Your task to perform on an android device: Search for "dell xps" on newegg, select the first entry, and add it to the cart. Image 0: 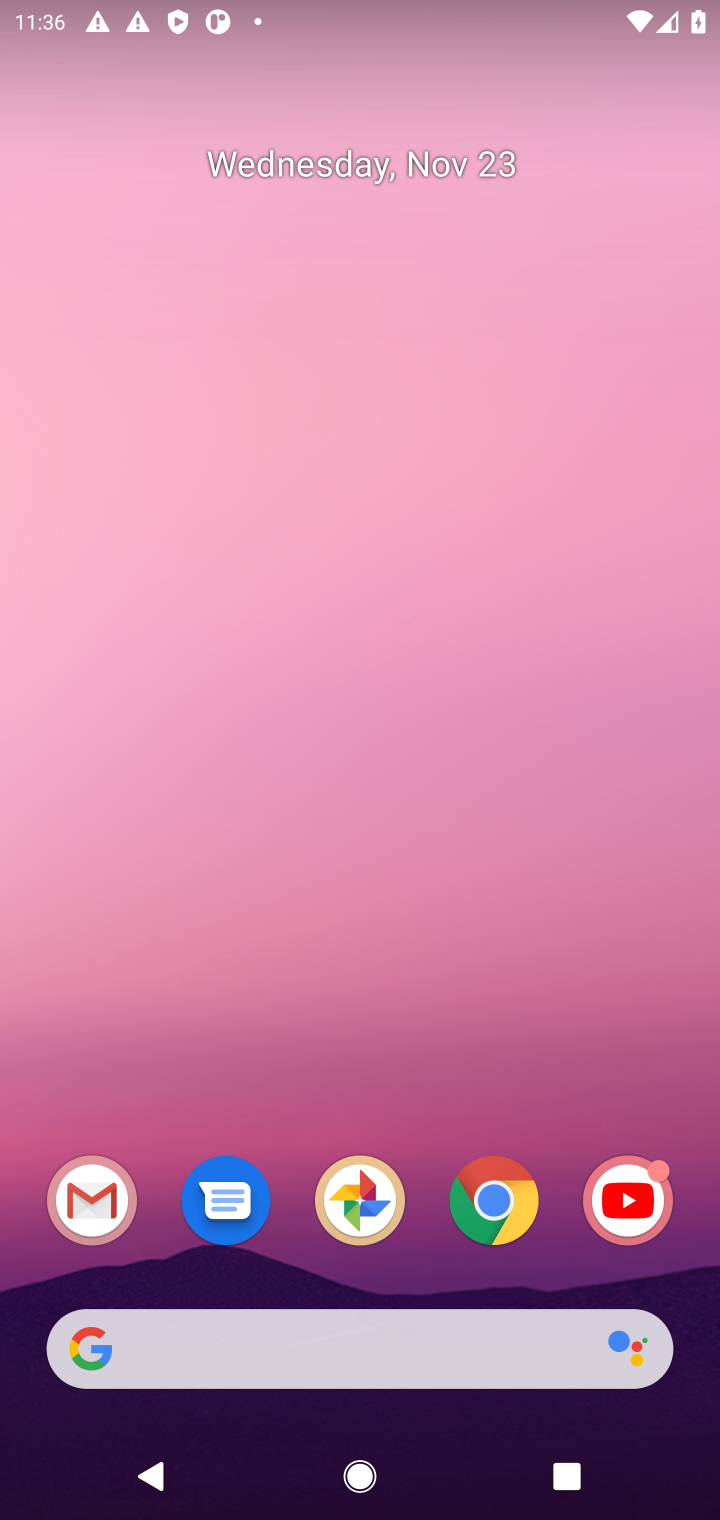
Step 0: click (555, 1335)
Your task to perform on an android device: Search for "dell xps" on newegg, select the first entry, and add it to the cart. Image 1: 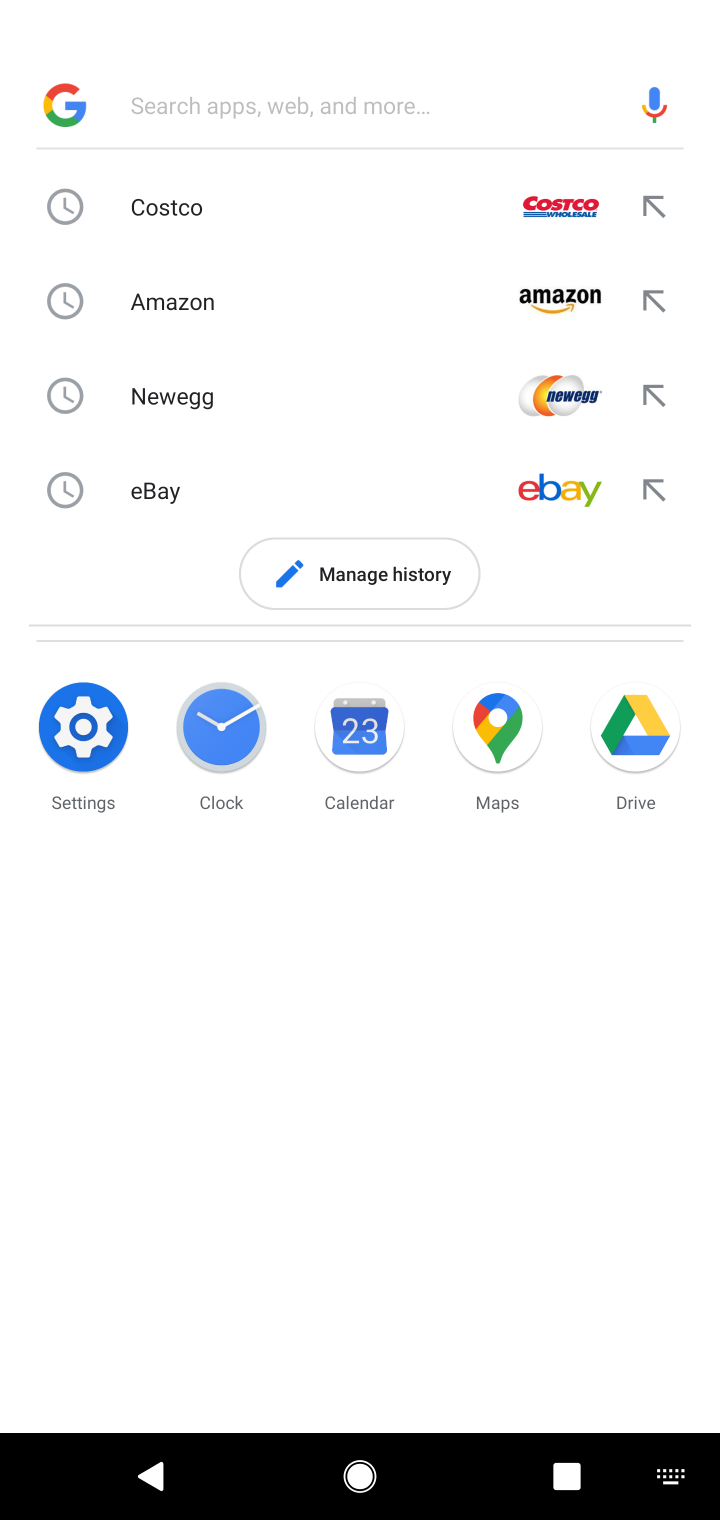
Step 1: click (504, 397)
Your task to perform on an android device: Search for "dell xps" on newegg, select the first entry, and add it to the cart. Image 2: 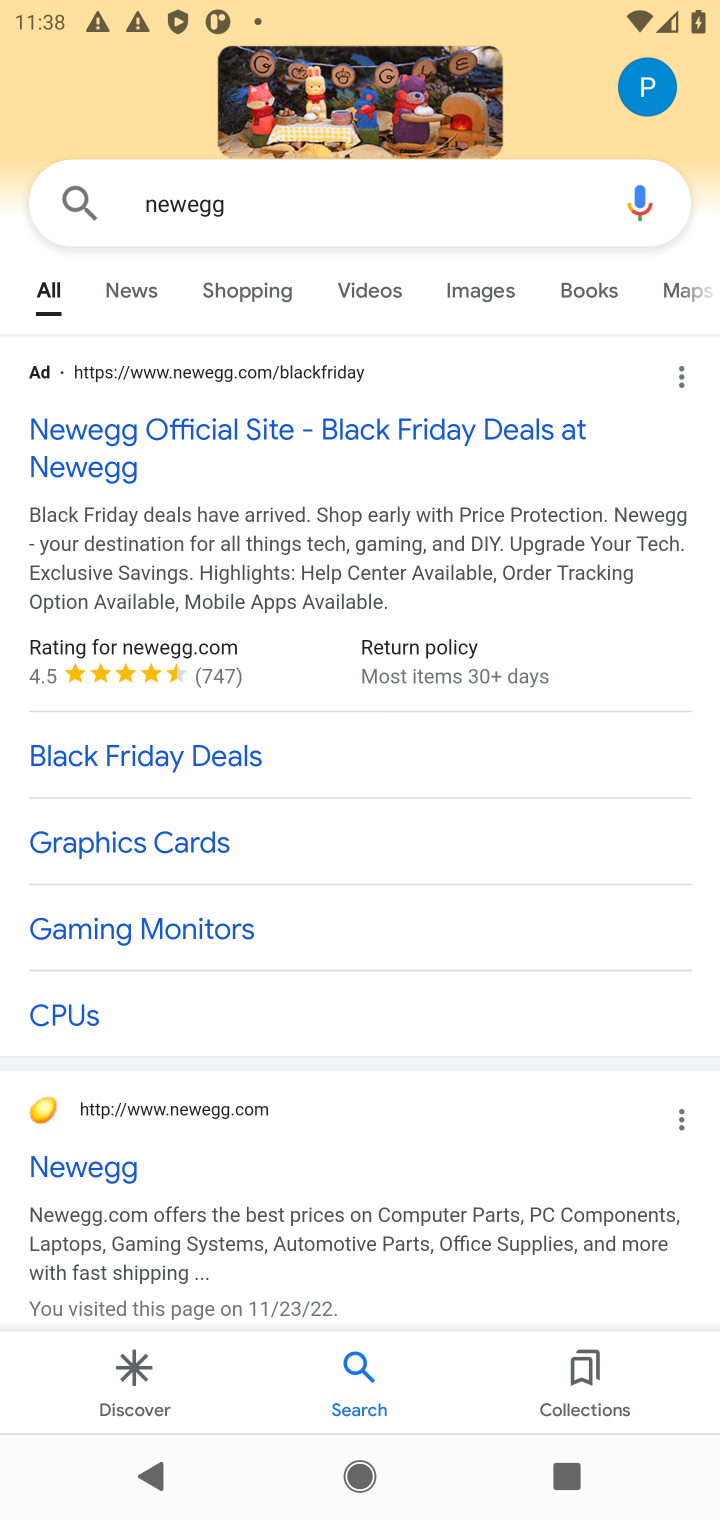
Step 2: click (180, 411)
Your task to perform on an android device: Search for "dell xps" on newegg, select the first entry, and add it to the cart. Image 3: 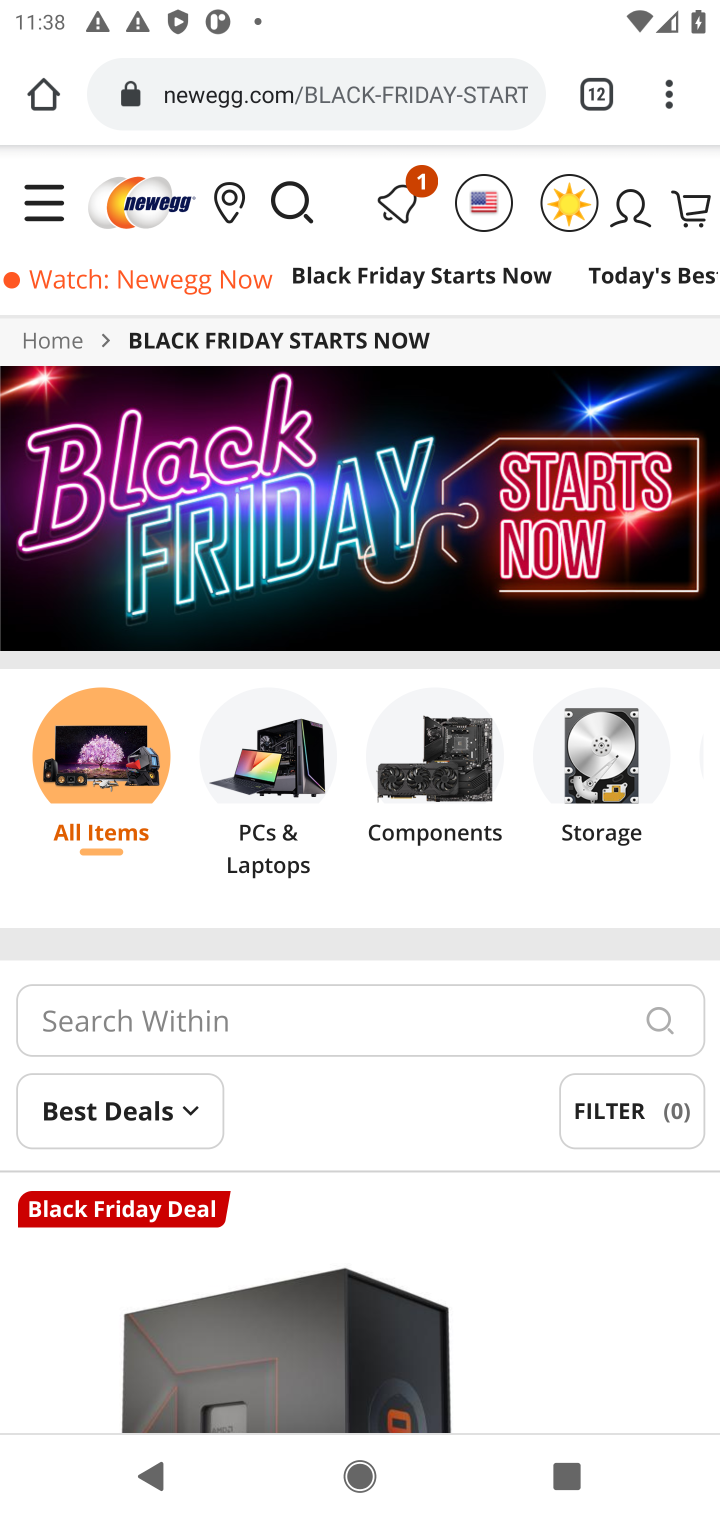
Step 3: click (303, 188)
Your task to perform on an android device: Search for "dell xps" on newegg, select the first entry, and add it to the cart. Image 4: 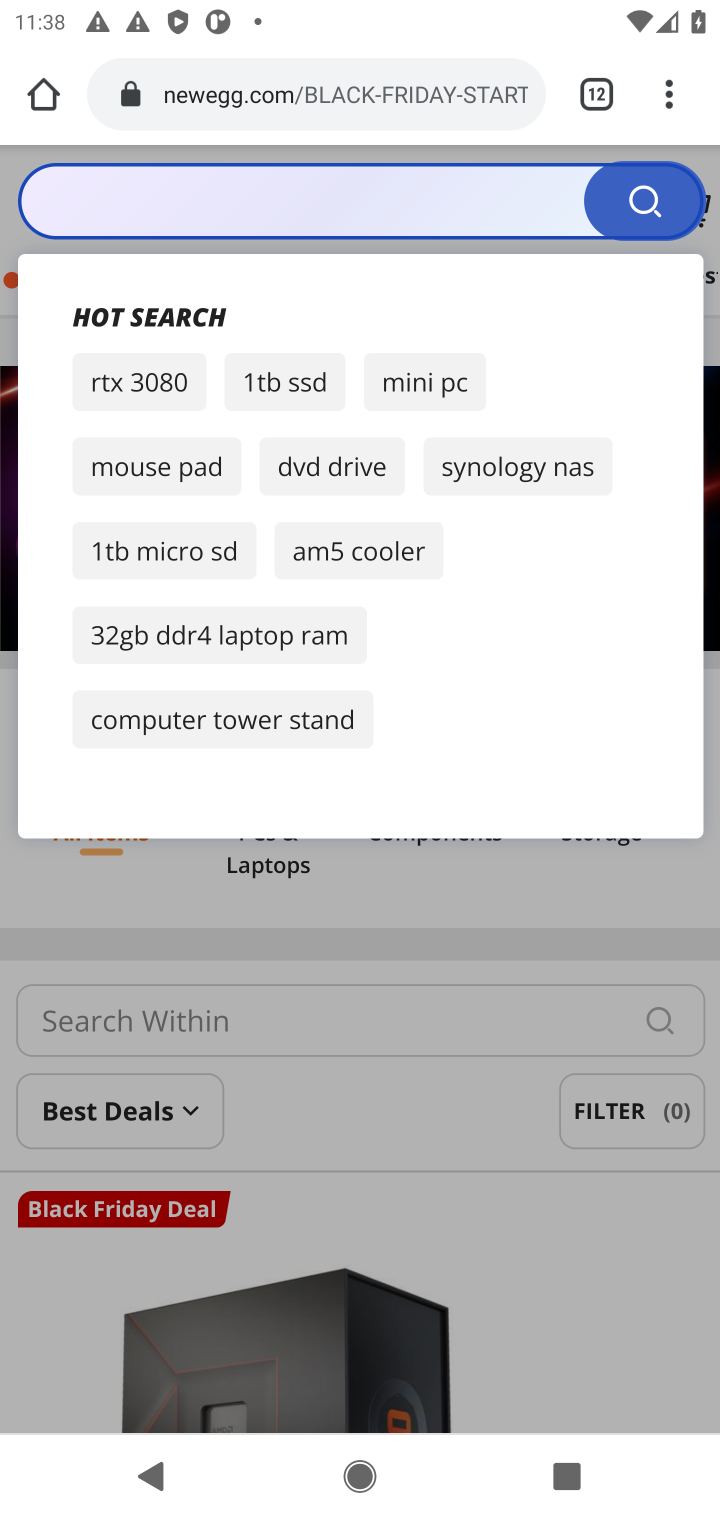
Step 4: task complete